Your task to perform on an android device: turn notification dots on Image 0: 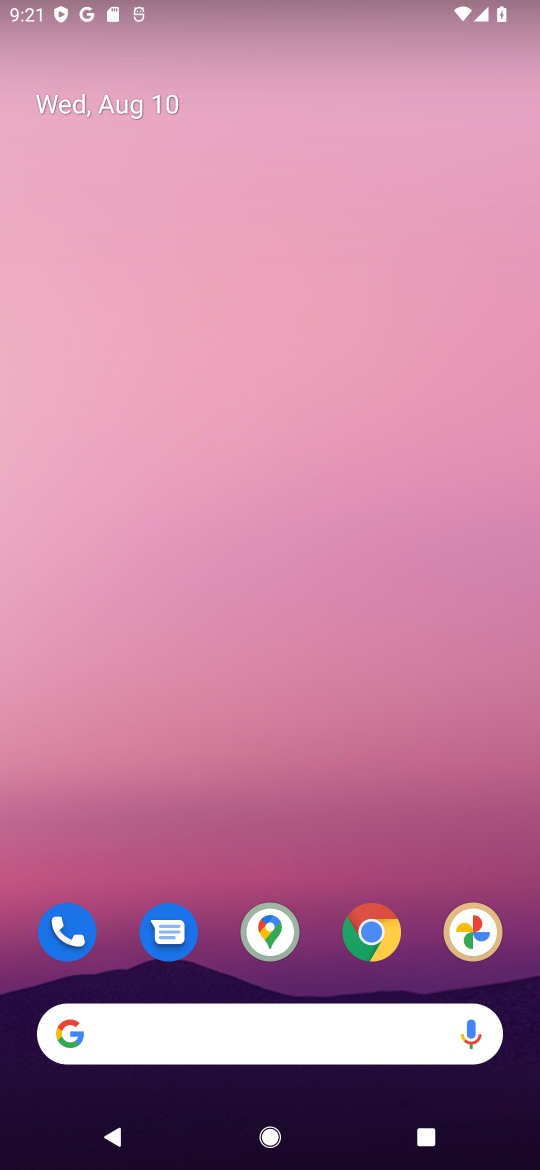
Step 0: drag from (270, 839) to (259, 61)
Your task to perform on an android device: turn notification dots on Image 1: 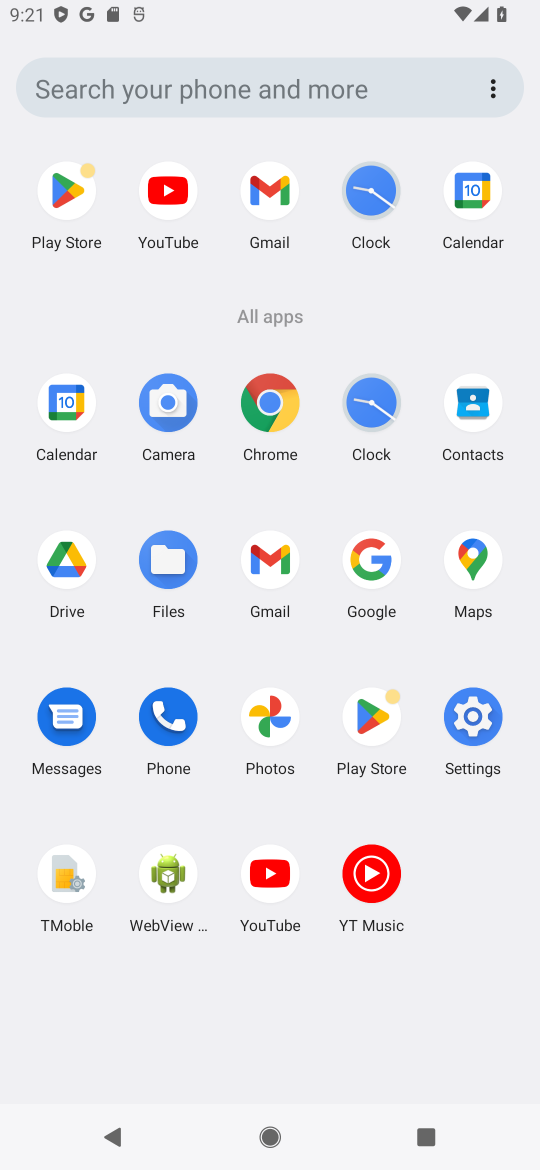
Step 1: click (480, 715)
Your task to perform on an android device: turn notification dots on Image 2: 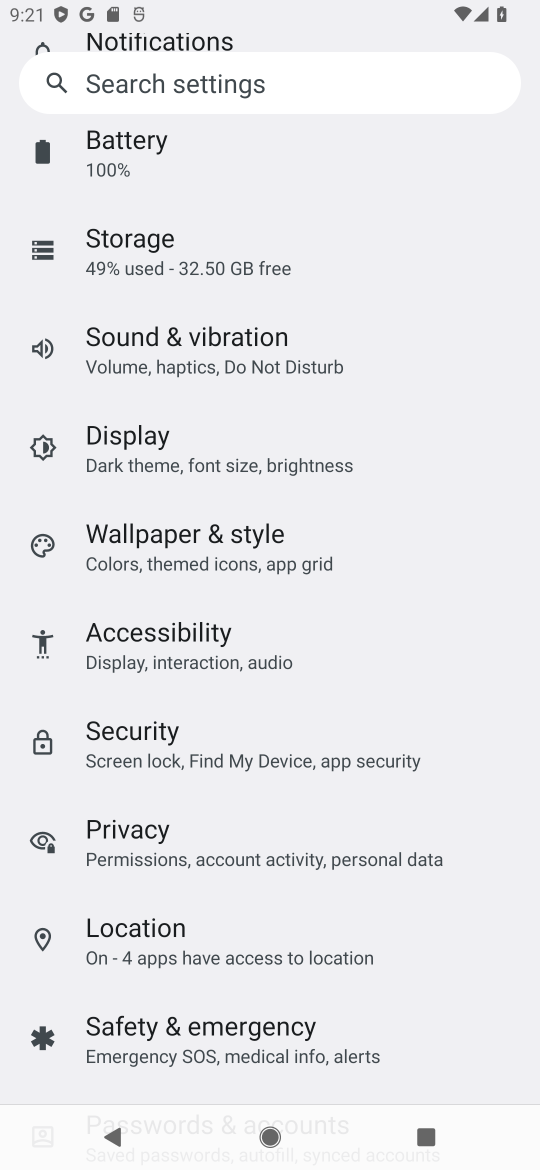
Step 2: drag from (359, 195) to (313, 834)
Your task to perform on an android device: turn notification dots on Image 3: 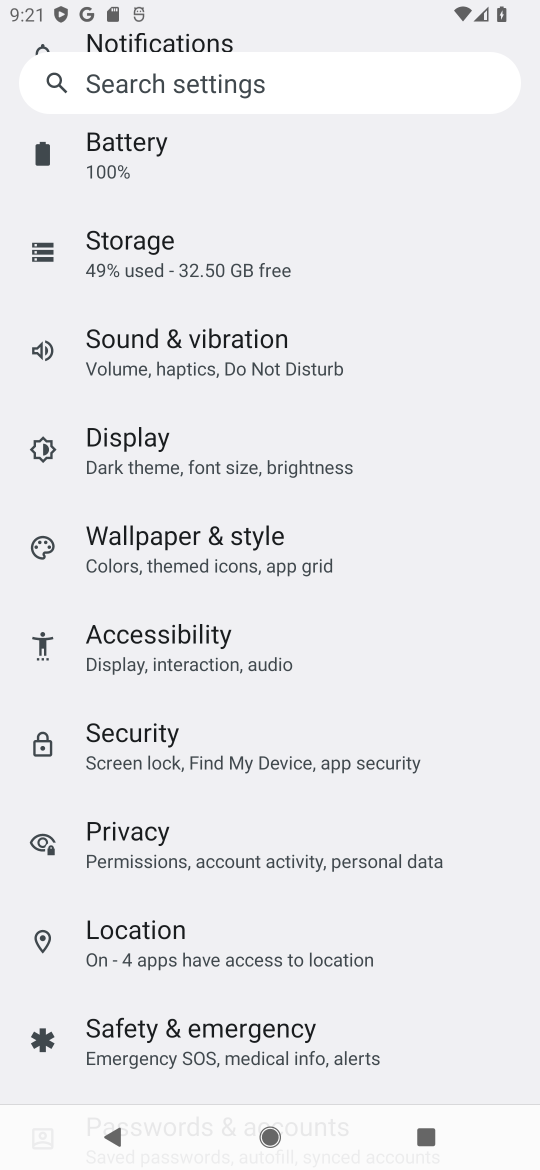
Step 3: drag from (309, 277) to (303, 1063)
Your task to perform on an android device: turn notification dots on Image 4: 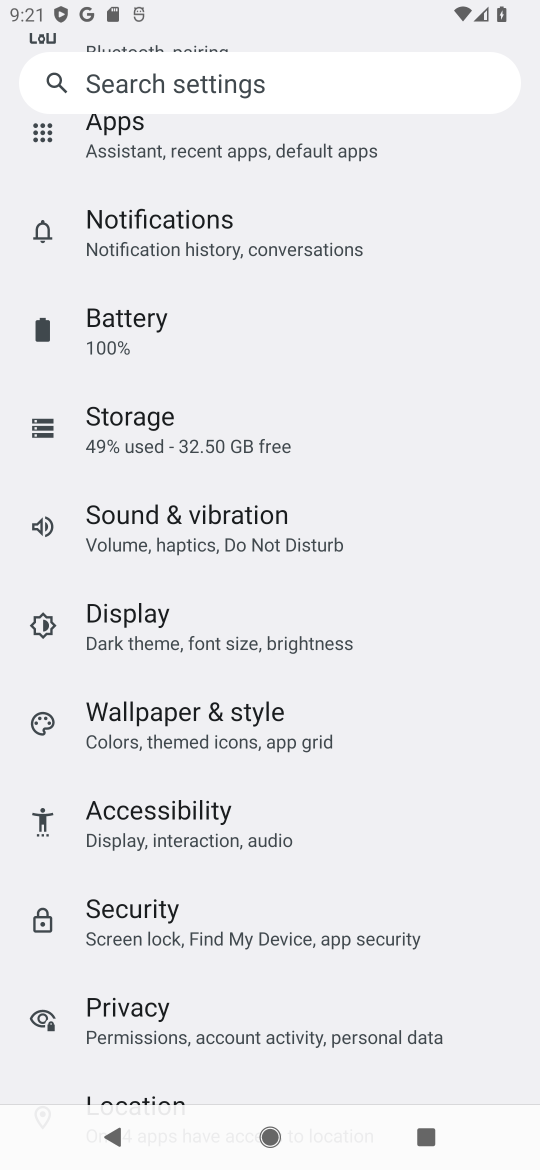
Step 4: click (192, 214)
Your task to perform on an android device: turn notification dots on Image 5: 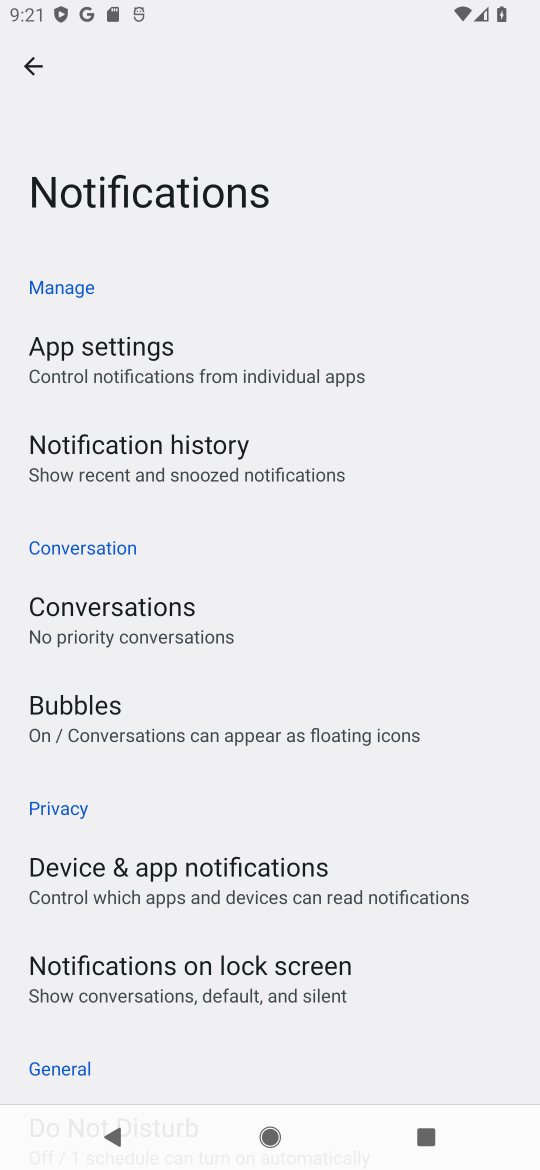
Step 5: task complete